Your task to perform on an android device: Do I have any events this weekend? Image 0: 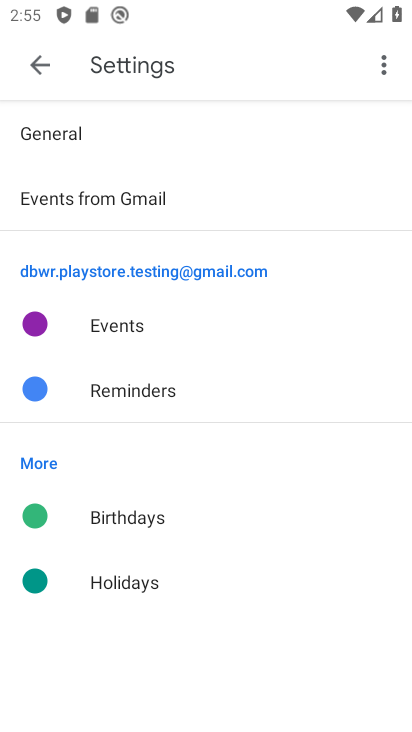
Step 0: press home button
Your task to perform on an android device: Do I have any events this weekend? Image 1: 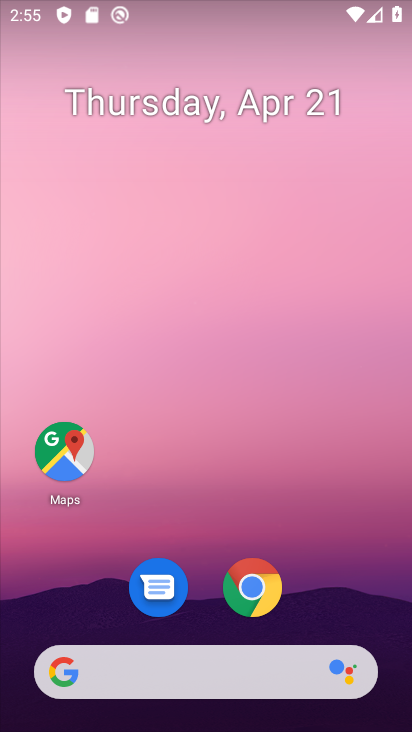
Step 1: drag from (307, 571) to (200, 185)
Your task to perform on an android device: Do I have any events this weekend? Image 2: 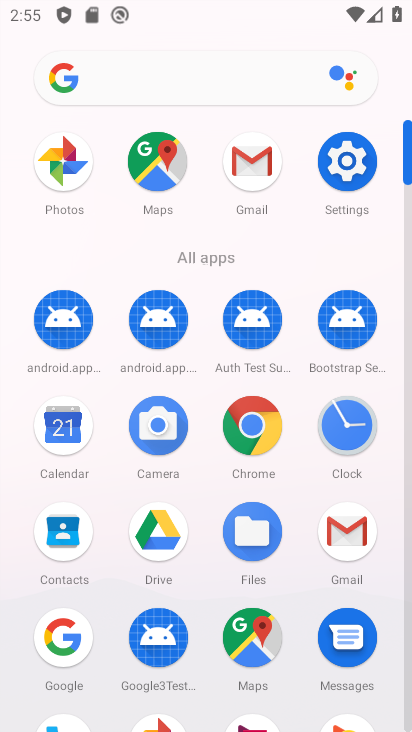
Step 2: click (45, 431)
Your task to perform on an android device: Do I have any events this weekend? Image 3: 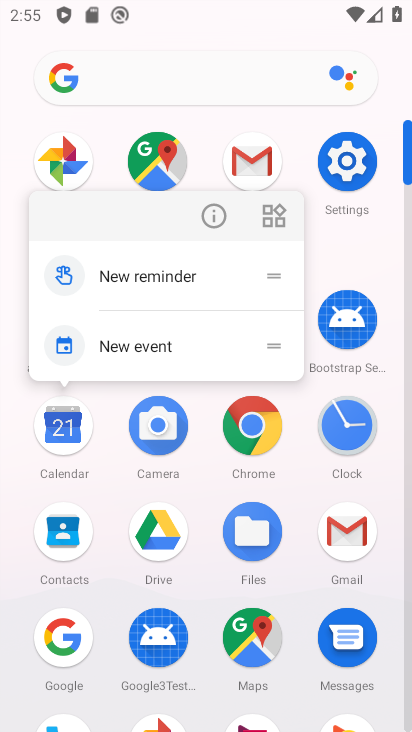
Step 3: click (69, 431)
Your task to perform on an android device: Do I have any events this weekend? Image 4: 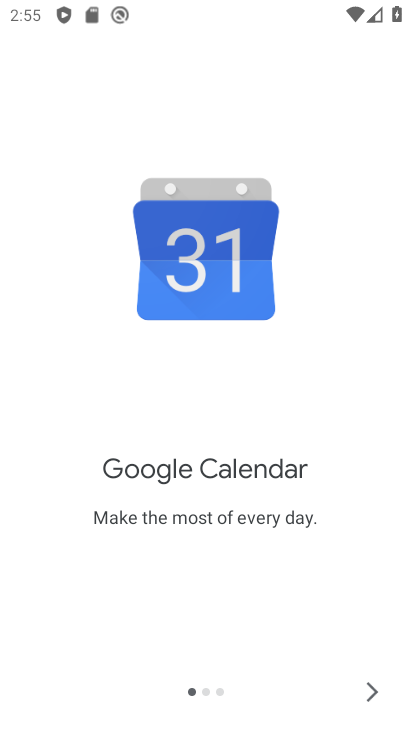
Step 4: click (363, 696)
Your task to perform on an android device: Do I have any events this weekend? Image 5: 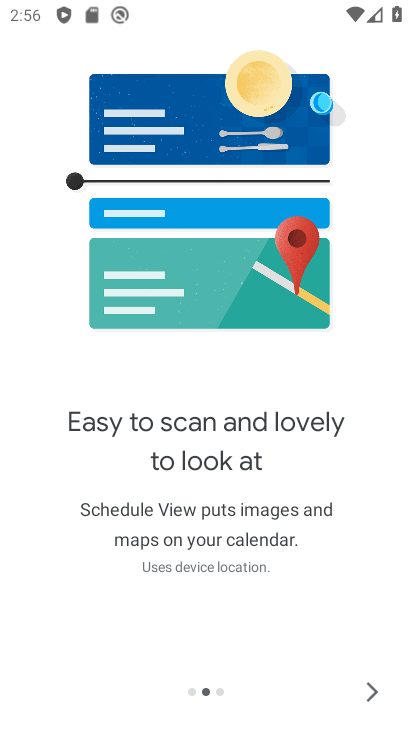
Step 5: click (373, 688)
Your task to perform on an android device: Do I have any events this weekend? Image 6: 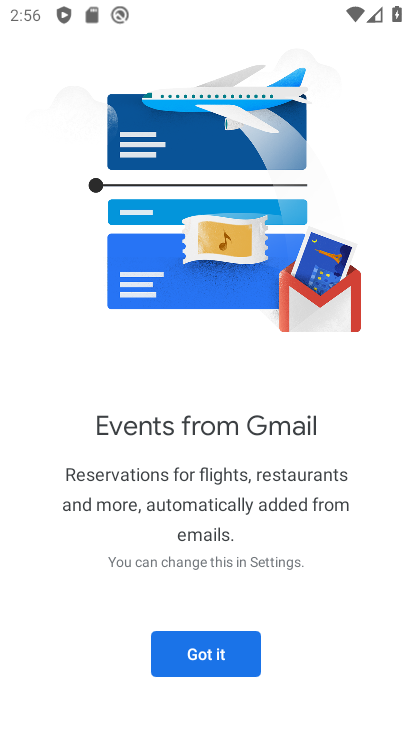
Step 6: click (186, 659)
Your task to perform on an android device: Do I have any events this weekend? Image 7: 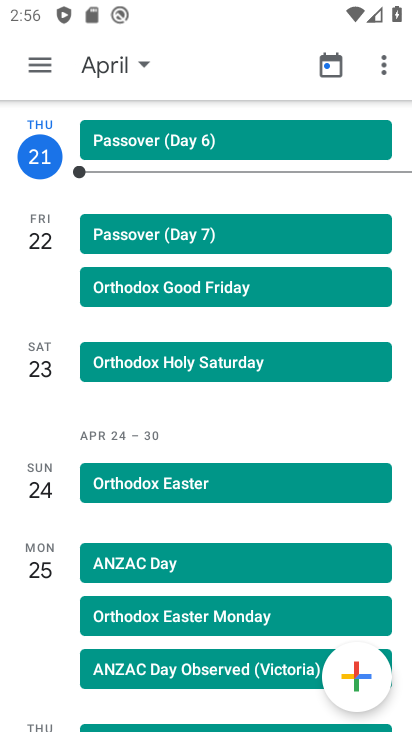
Step 7: click (38, 66)
Your task to perform on an android device: Do I have any events this weekend? Image 8: 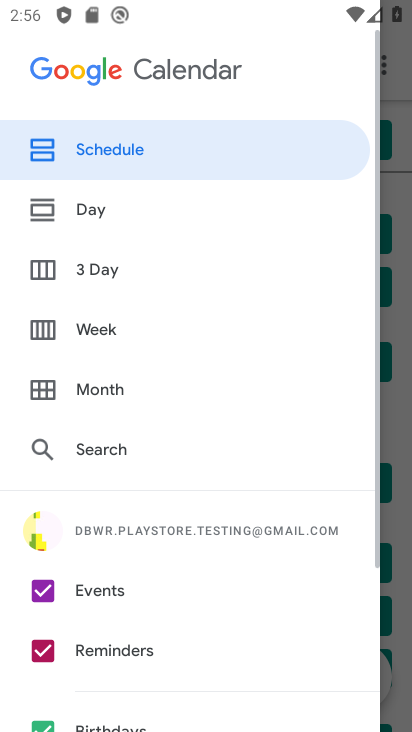
Step 8: click (394, 75)
Your task to perform on an android device: Do I have any events this weekend? Image 9: 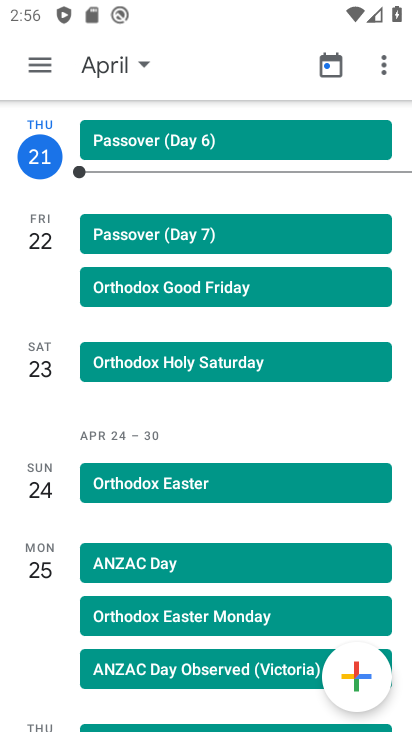
Step 9: click (40, 365)
Your task to perform on an android device: Do I have any events this weekend? Image 10: 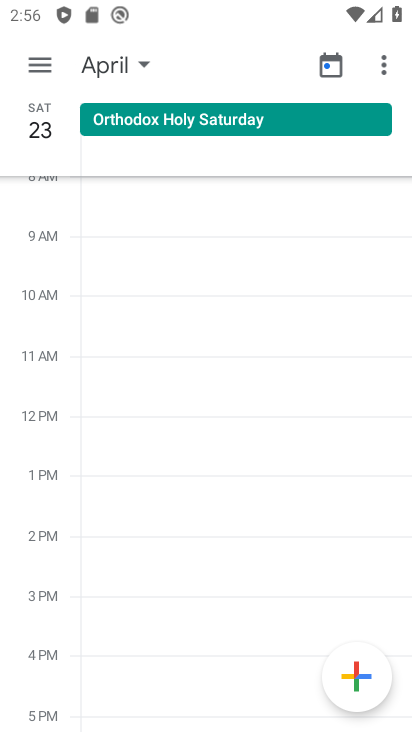
Step 10: drag from (195, 614) to (181, 86)
Your task to perform on an android device: Do I have any events this weekend? Image 11: 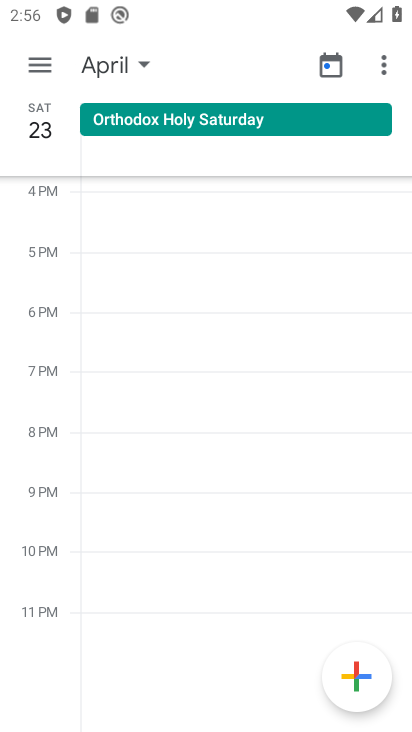
Step 11: drag from (208, 619) to (234, 152)
Your task to perform on an android device: Do I have any events this weekend? Image 12: 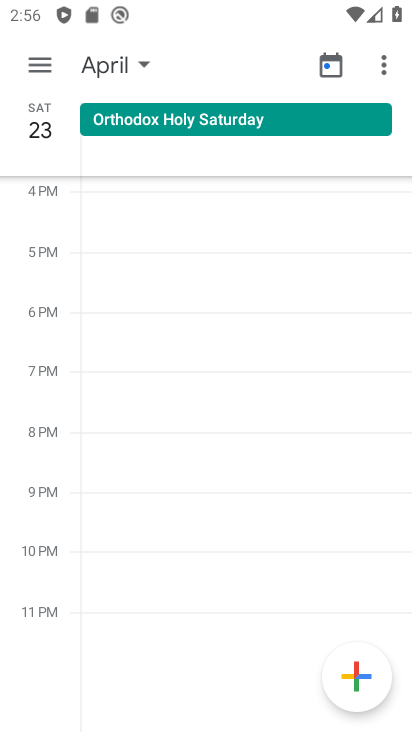
Step 12: drag from (194, 611) to (185, 687)
Your task to perform on an android device: Do I have any events this weekend? Image 13: 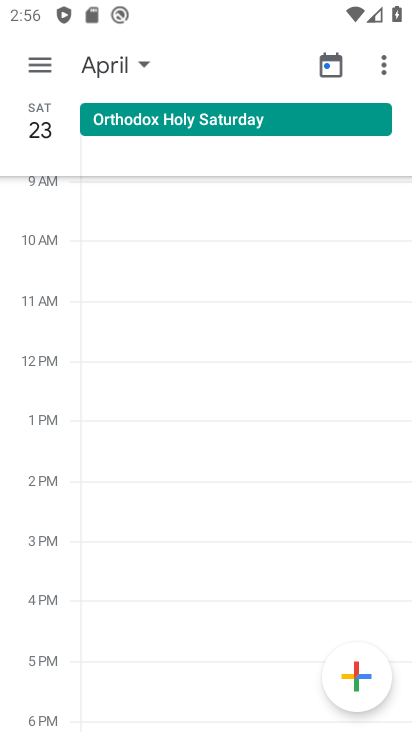
Step 13: drag from (236, 280) to (207, 520)
Your task to perform on an android device: Do I have any events this weekend? Image 14: 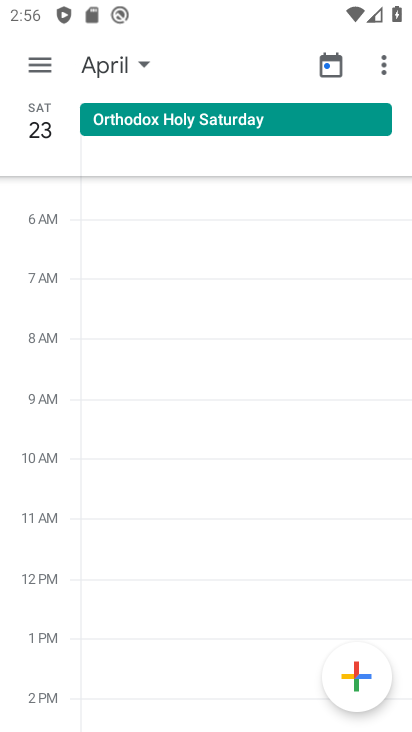
Step 14: drag from (270, 210) to (245, 583)
Your task to perform on an android device: Do I have any events this weekend? Image 15: 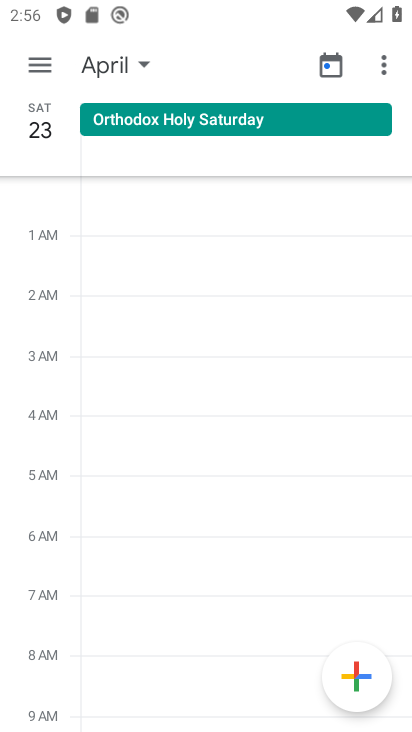
Step 15: drag from (350, 192) to (248, 619)
Your task to perform on an android device: Do I have any events this weekend? Image 16: 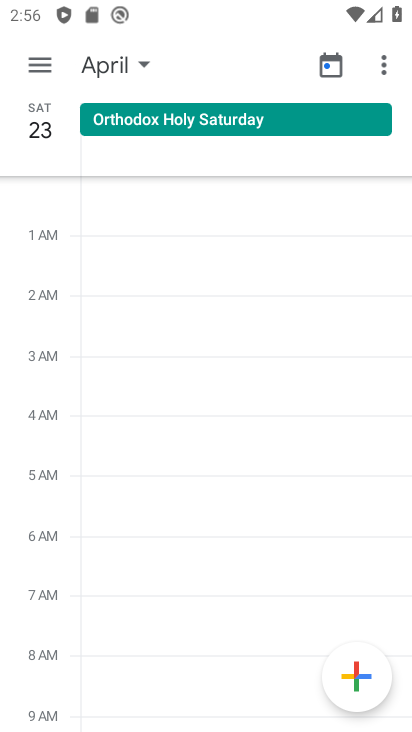
Step 16: click (28, 63)
Your task to perform on an android device: Do I have any events this weekend? Image 17: 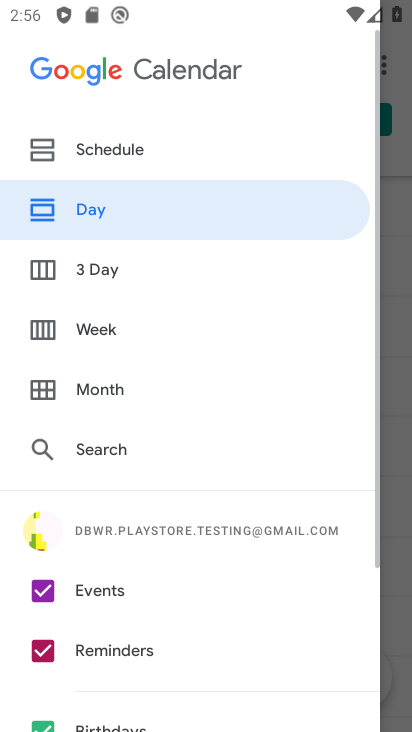
Step 17: click (397, 493)
Your task to perform on an android device: Do I have any events this weekend? Image 18: 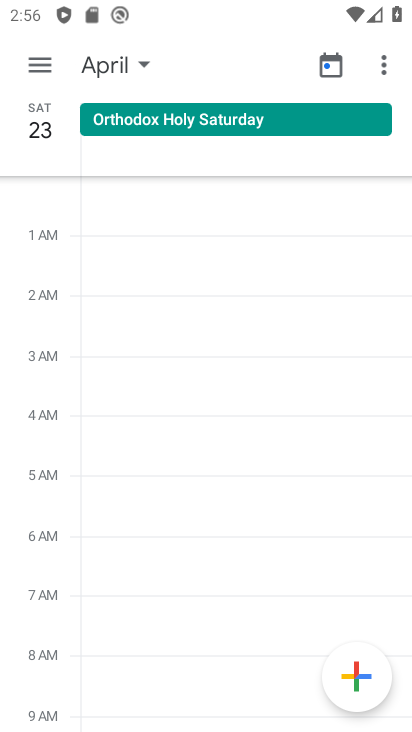
Step 18: click (209, 222)
Your task to perform on an android device: Do I have any events this weekend? Image 19: 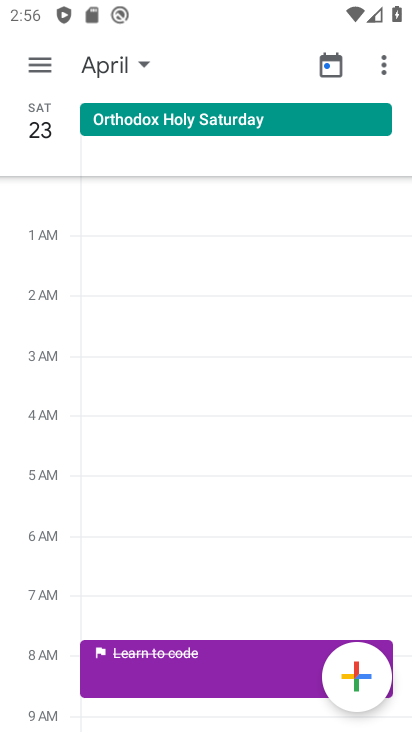
Step 19: task complete